Your task to perform on an android device: Open Google Maps and go to "Timeline" Image 0: 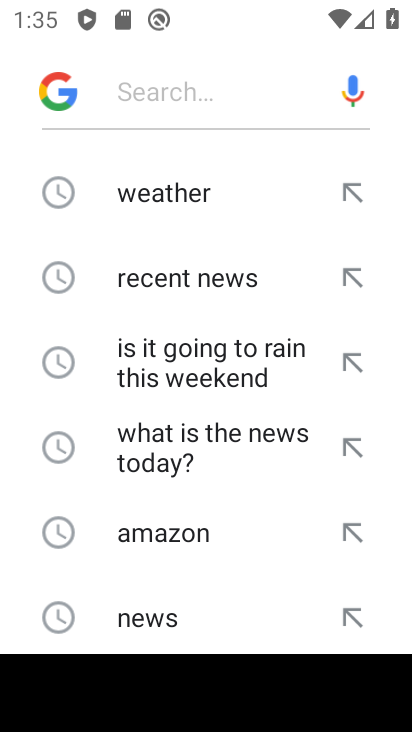
Step 0: press back button
Your task to perform on an android device: Open Google Maps and go to "Timeline" Image 1: 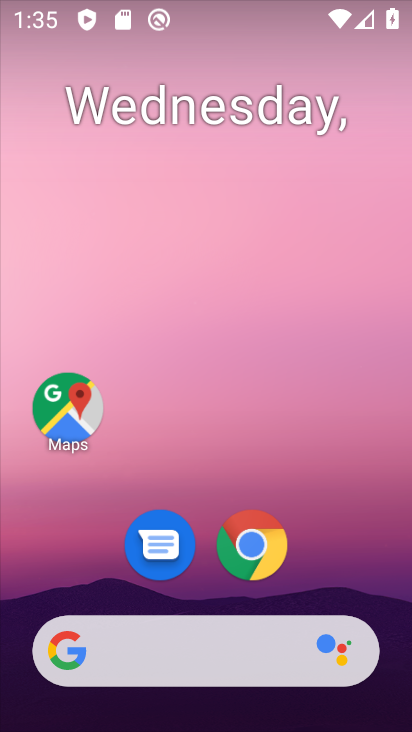
Step 1: click (84, 408)
Your task to perform on an android device: Open Google Maps and go to "Timeline" Image 2: 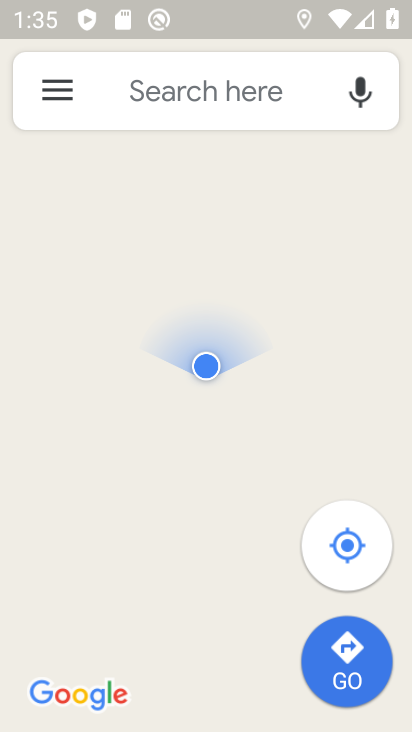
Step 2: click (54, 95)
Your task to perform on an android device: Open Google Maps and go to "Timeline" Image 3: 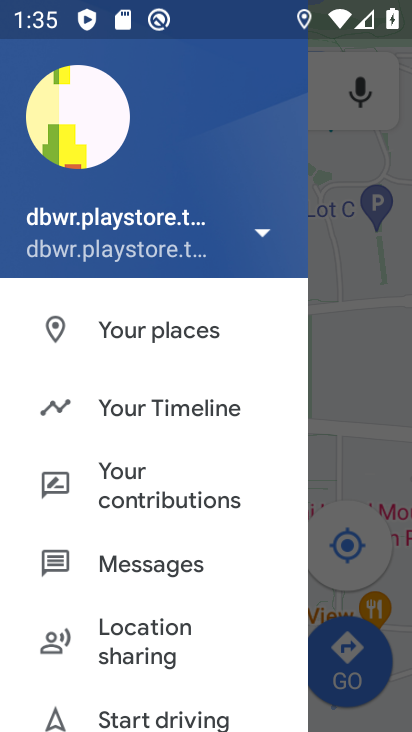
Step 3: click (143, 404)
Your task to perform on an android device: Open Google Maps and go to "Timeline" Image 4: 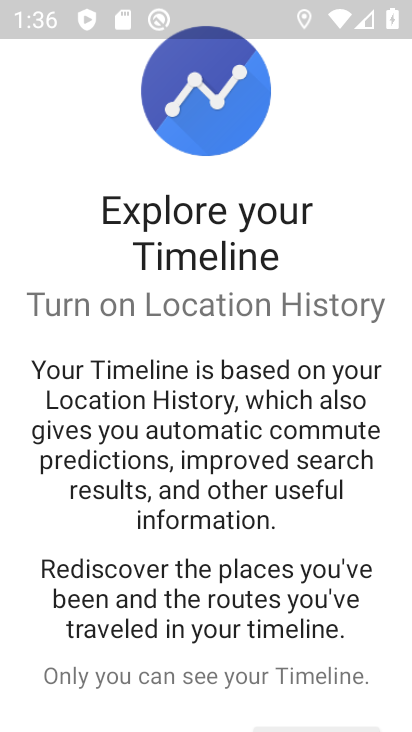
Step 4: drag from (365, 710) to (323, 278)
Your task to perform on an android device: Open Google Maps and go to "Timeline" Image 5: 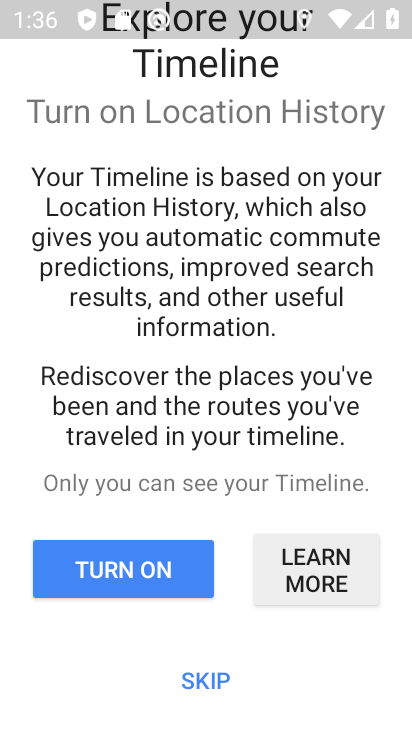
Step 5: click (186, 572)
Your task to perform on an android device: Open Google Maps and go to "Timeline" Image 6: 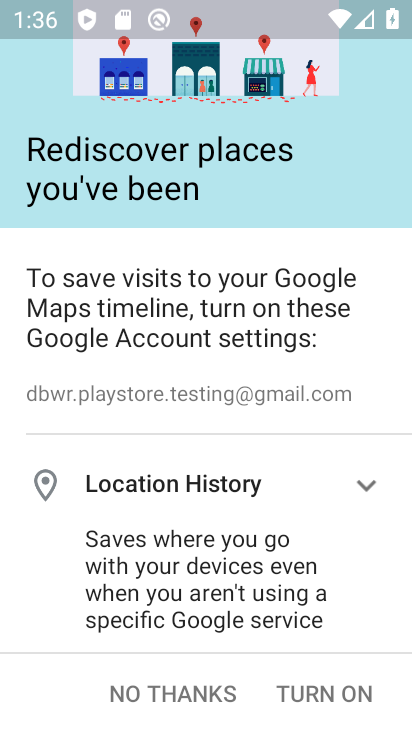
Step 6: task complete